Your task to perform on an android device: turn off sleep mode Image 0: 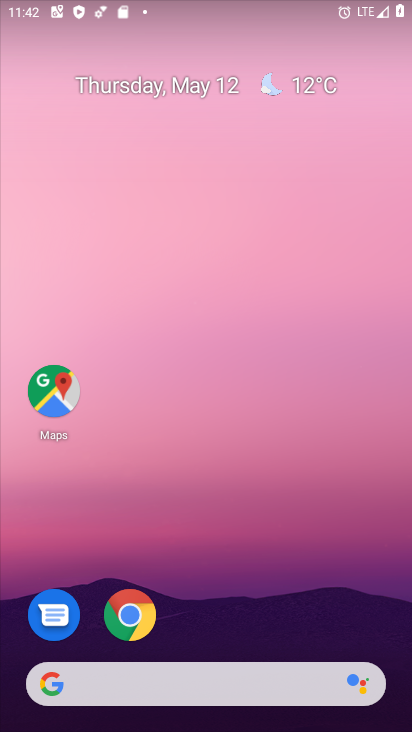
Step 0: drag from (276, 568) to (354, 16)
Your task to perform on an android device: turn off sleep mode Image 1: 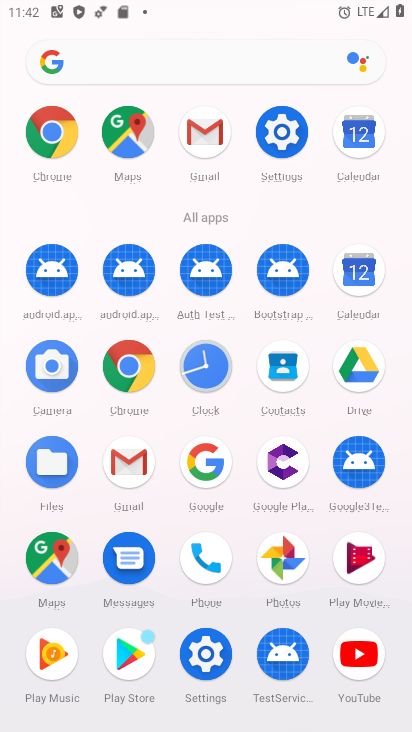
Step 1: click (291, 125)
Your task to perform on an android device: turn off sleep mode Image 2: 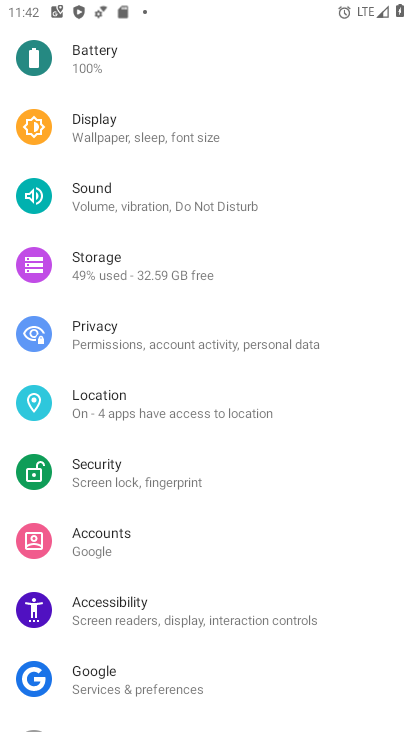
Step 2: click (185, 131)
Your task to perform on an android device: turn off sleep mode Image 3: 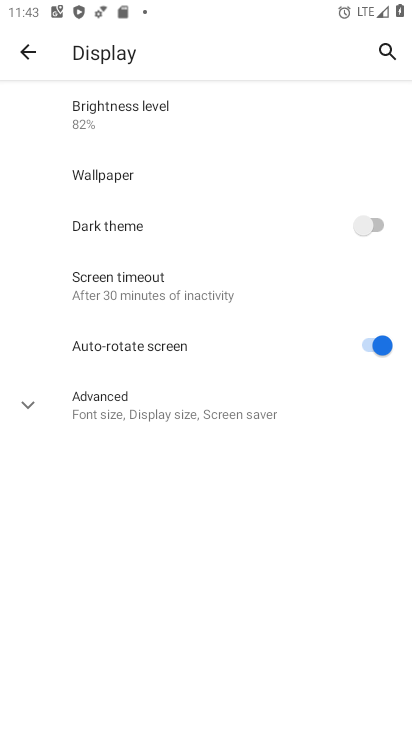
Step 3: click (33, 396)
Your task to perform on an android device: turn off sleep mode Image 4: 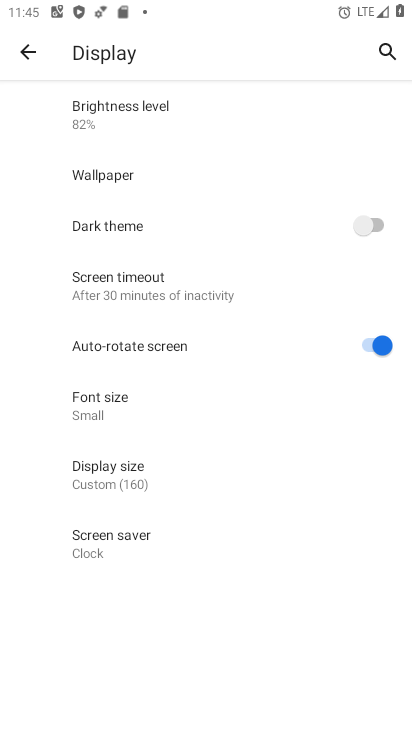
Step 4: task complete